Your task to perform on an android device: What's on my calendar tomorrow? Image 0: 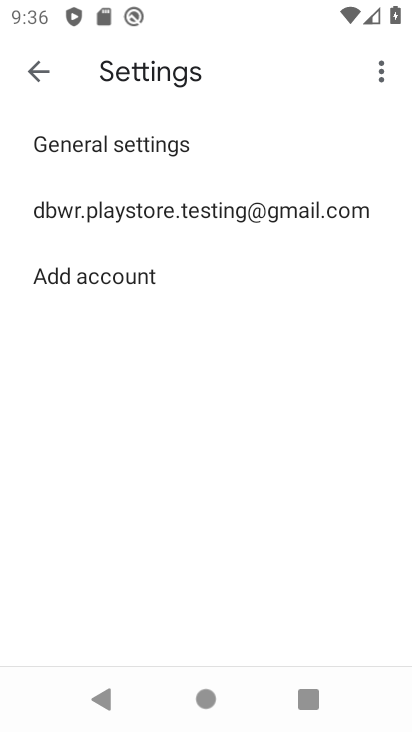
Step 0: press home button
Your task to perform on an android device: What's on my calendar tomorrow? Image 1: 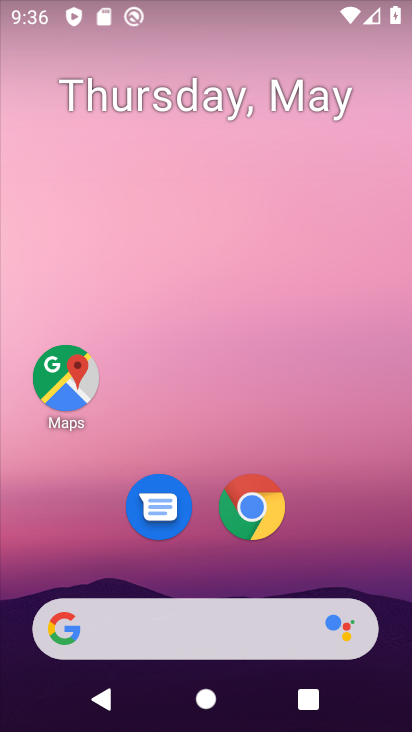
Step 1: drag from (380, 520) to (311, 250)
Your task to perform on an android device: What's on my calendar tomorrow? Image 2: 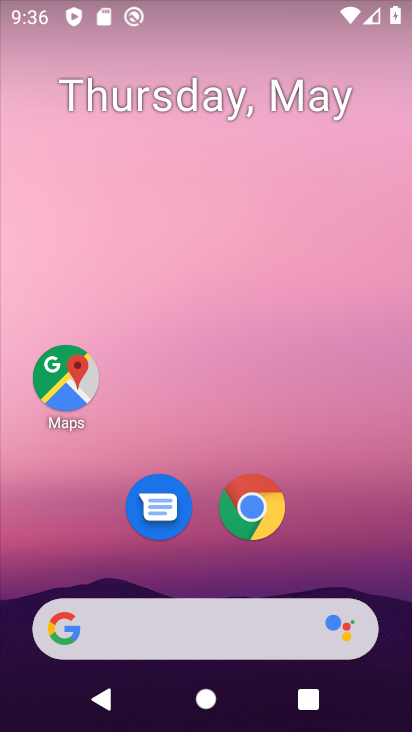
Step 2: drag from (319, 517) to (256, 247)
Your task to perform on an android device: What's on my calendar tomorrow? Image 3: 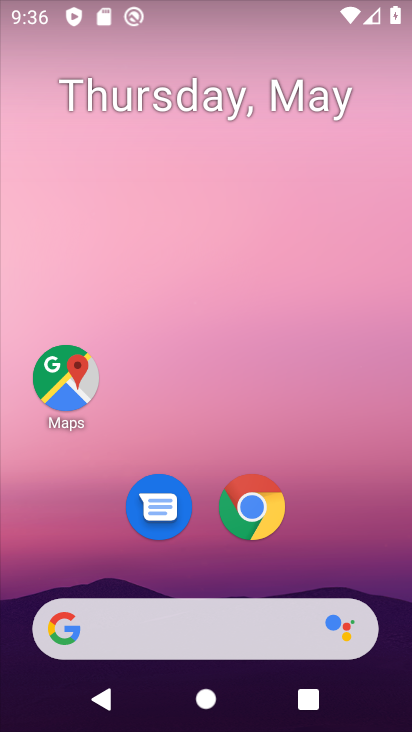
Step 3: drag from (374, 539) to (254, 118)
Your task to perform on an android device: What's on my calendar tomorrow? Image 4: 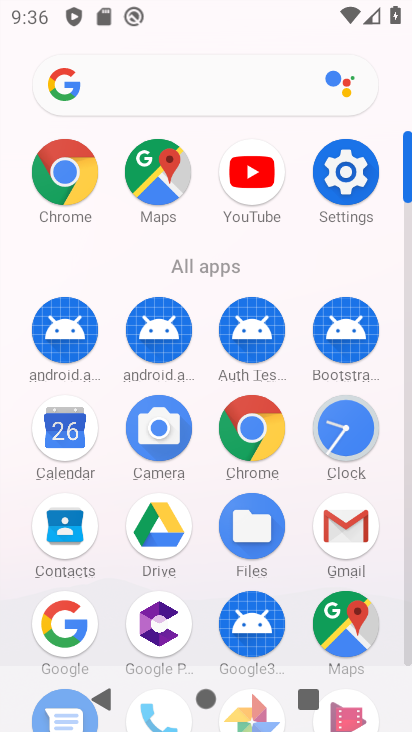
Step 4: click (404, 641)
Your task to perform on an android device: What's on my calendar tomorrow? Image 5: 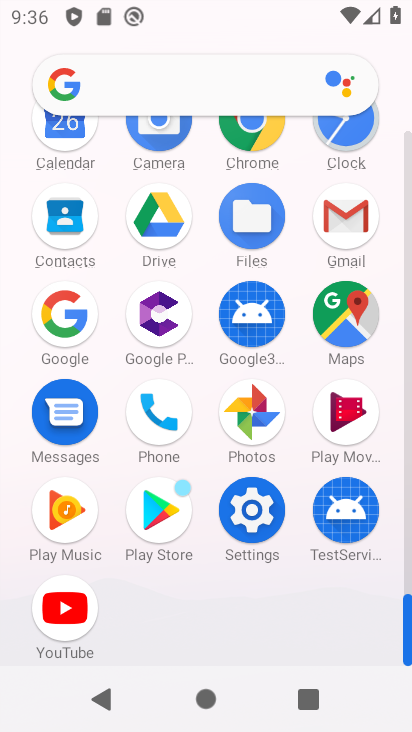
Step 5: click (67, 132)
Your task to perform on an android device: What's on my calendar tomorrow? Image 6: 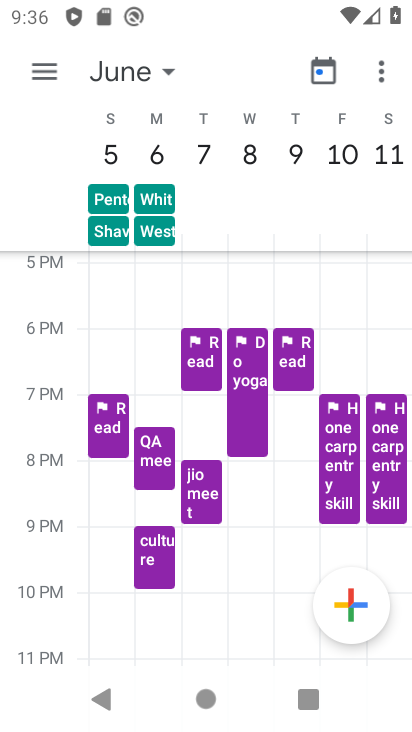
Step 6: click (45, 70)
Your task to perform on an android device: What's on my calendar tomorrow? Image 7: 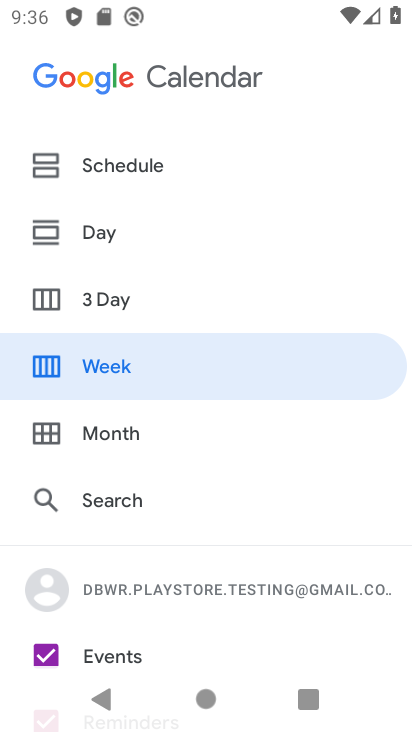
Step 7: click (104, 166)
Your task to perform on an android device: What's on my calendar tomorrow? Image 8: 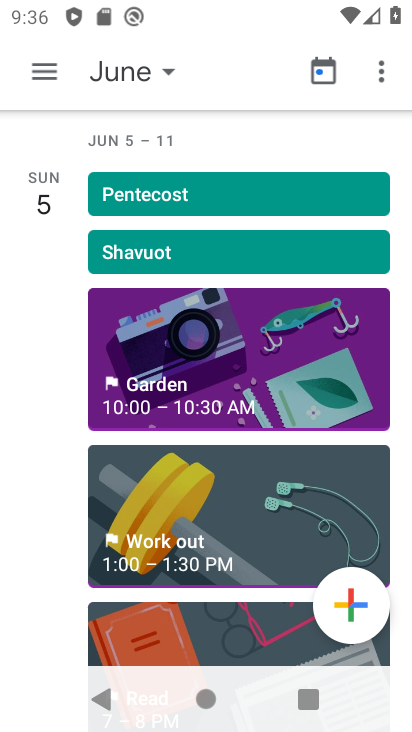
Step 8: click (145, 70)
Your task to perform on an android device: What's on my calendar tomorrow? Image 9: 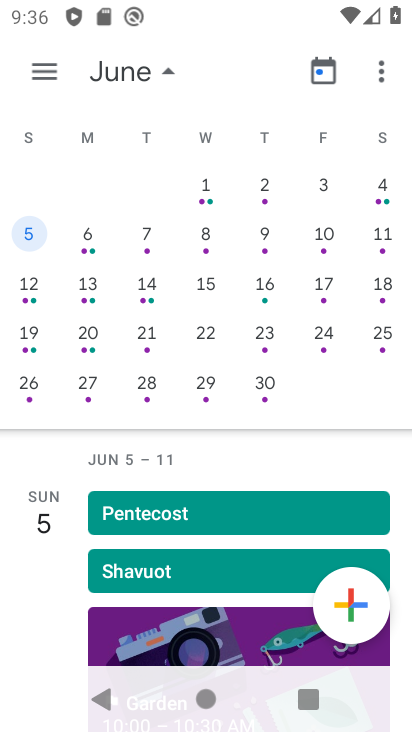
Step 9: drag from (63, 292) to (351, 332)
Your task to perform on an android device: What's on my calendar tomorrow? Image 10: 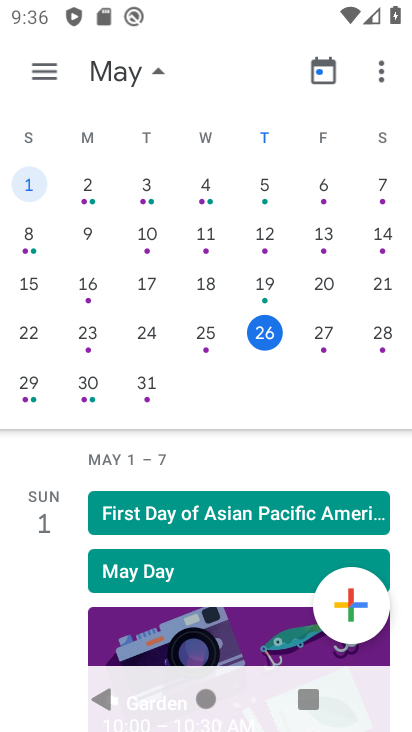
Step 10: click (387, 334)
Your task to perform on an android device: What's on my calendar tomorrow? Image 11: 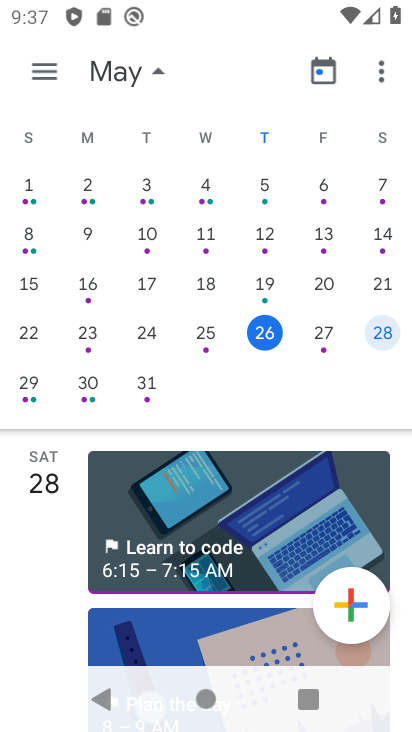
Step 11: task complete